Your task to perform on an android device: Open CNN.com Image 0: 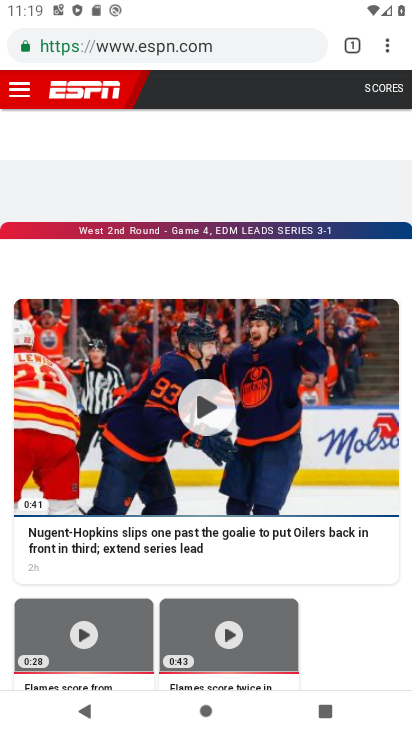
Step 0: press home button
Your task to perform on an android device: Open CNN.com Image 1: 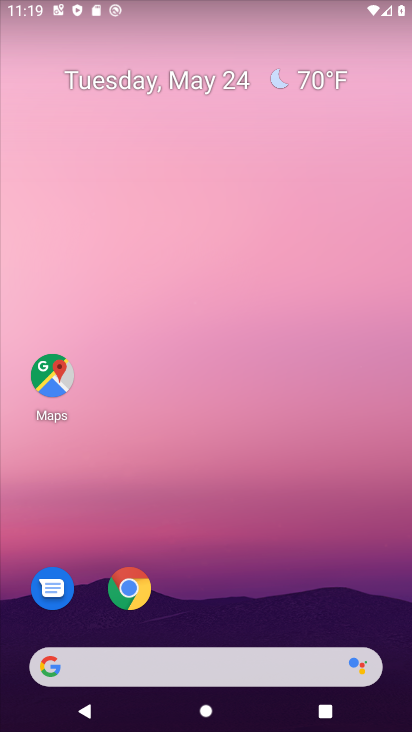
Step 1: click (129, 583)
Your task to perform on an android device: Open CNN.com Image 2: 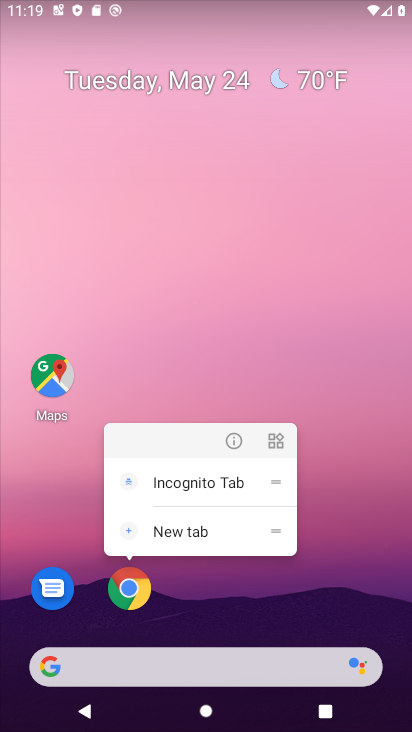
Step 2: click (127, 580)
Your task to perform on an android device: Open CNN.com Image 3: 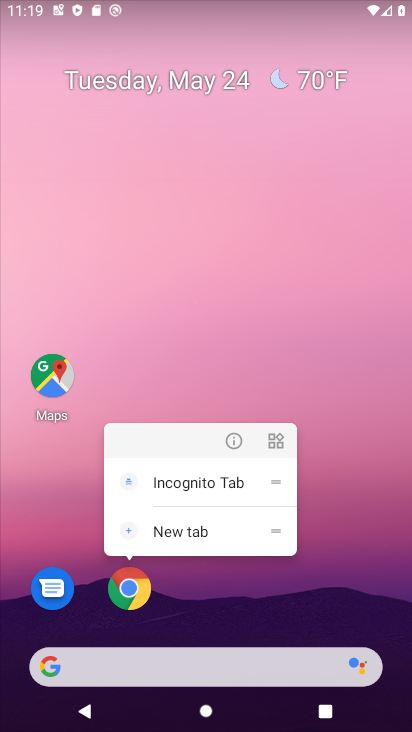
Step 3: click (127, 580)
Your task to perform on an android device: Open CNN.com Image 4: 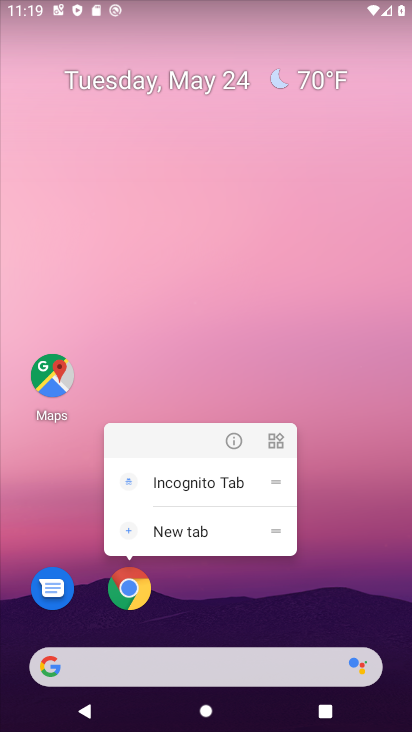
Step 4: click (127, 580)
Your task to perform on an android device: Open CNN.com Image 5: 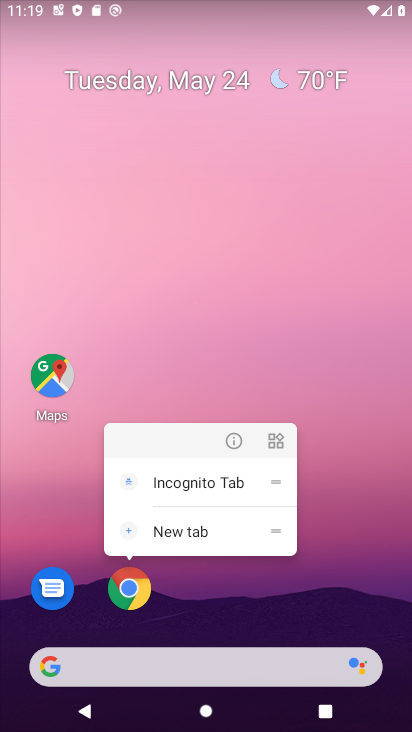
Step 5: click (241, 617)
Your task to perform on an android device: Open CNN.com Image 6: 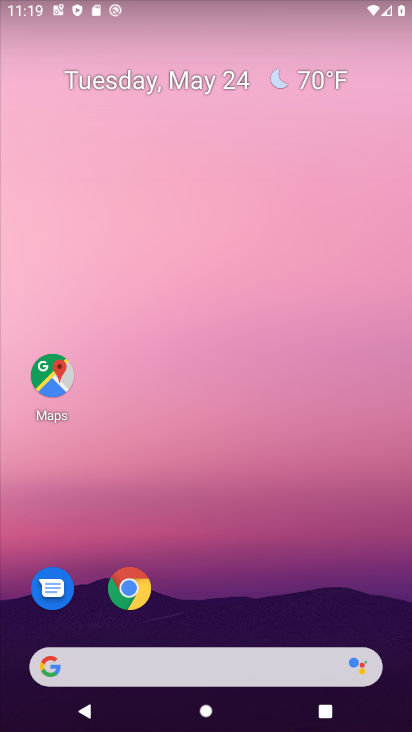
Step 6: drag from (308, 626) to (333, 19)
Your task to perform on an android device: Open CNN.com Image 7: 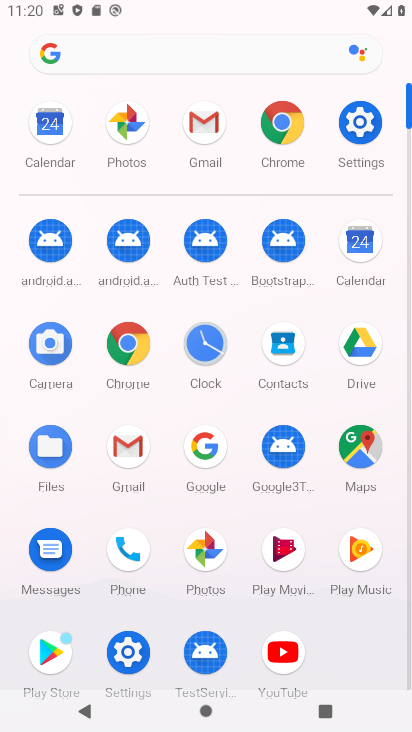
Step 7: click (281, 117)
Your task to perform on an android device: Open CNN.com Image 8: 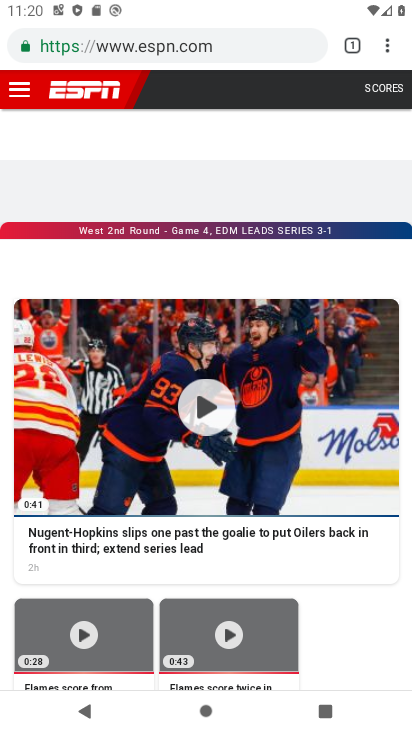
Step 8: click (348, 44)
Your task to perform on an android device: Open CNN.com Image 9: 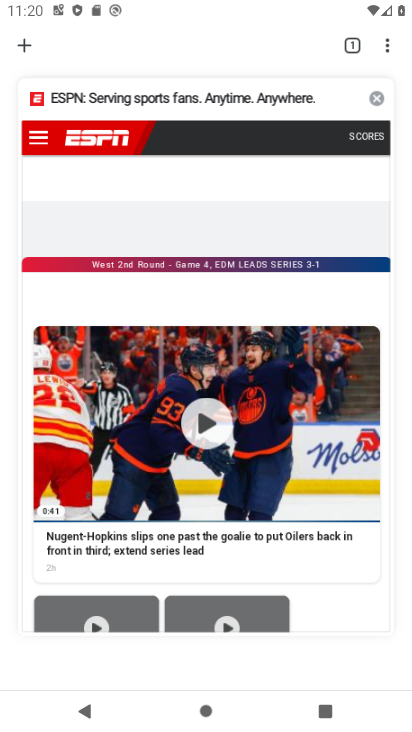
Step 9: click (376, 93)
Your task to perform on an android device: Open CNN.com Image 10: 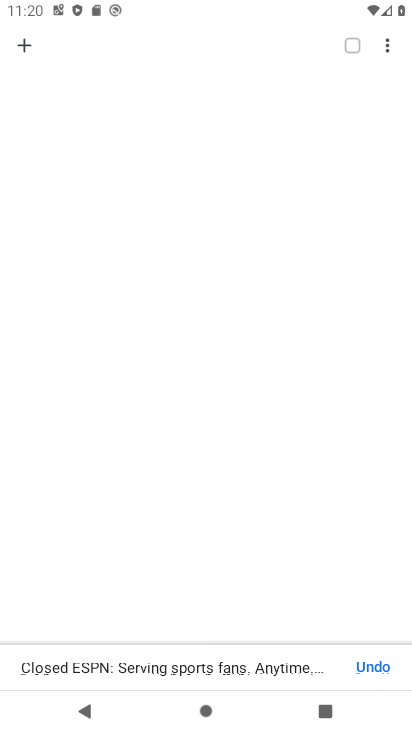
Step 10: click (28, 47)
Your task to perform on an android device: Open CNN.com Image 11: 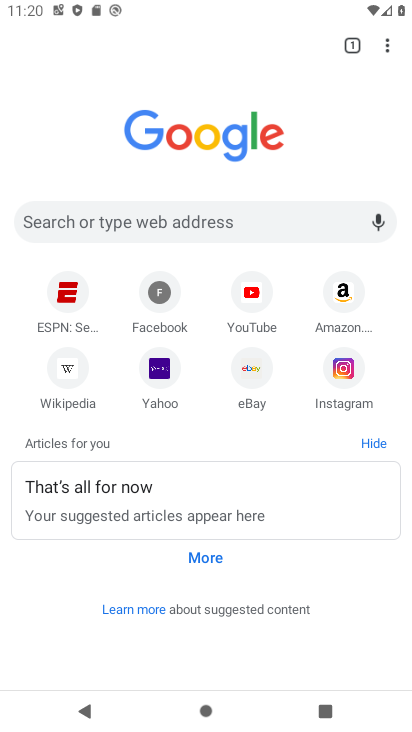
Step 11: click (165, 219)
Your task to perform on an android device: Open CNN.com Image 12: 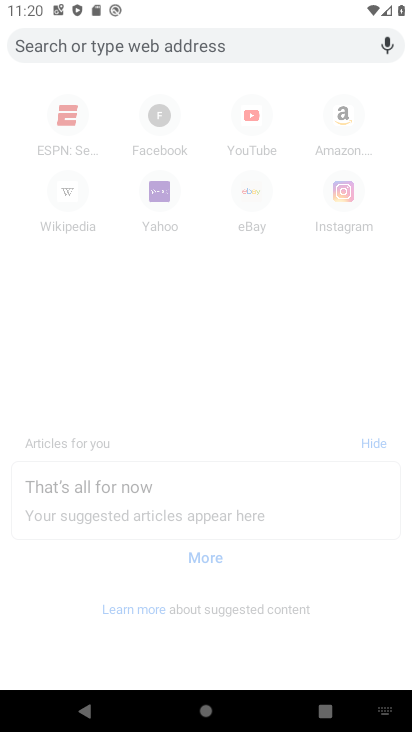
Step 12: type "cnn.com"
Your task to perform on an android device: Open CNN.com Image 13: 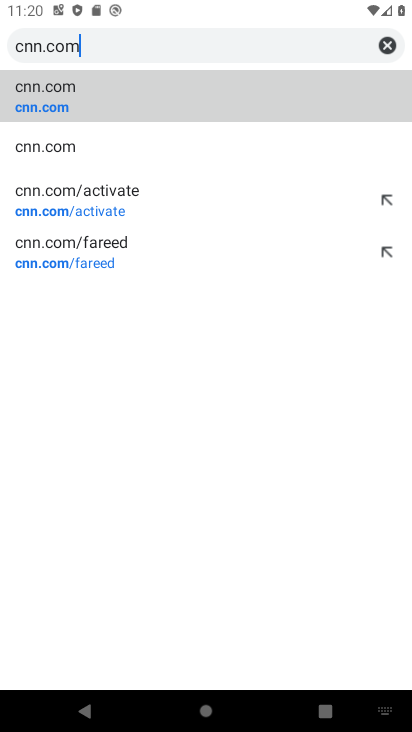
Step 13: click (80, 94)
Your task to perform on an android device: Open CNN.com Image 14: 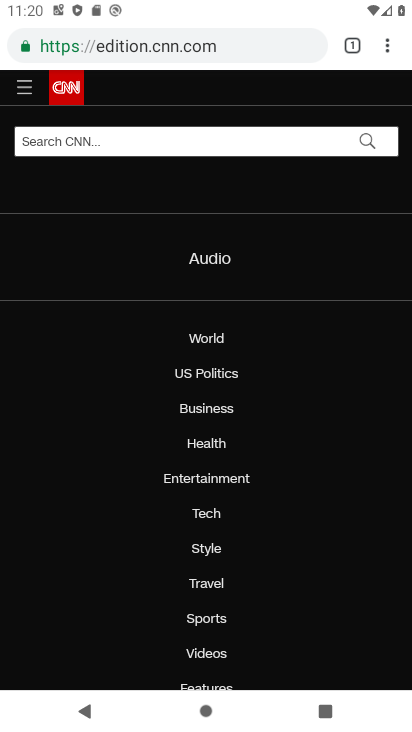
Step 14: task complete